Your task to perform on an android device: What's the weather? Image 0: 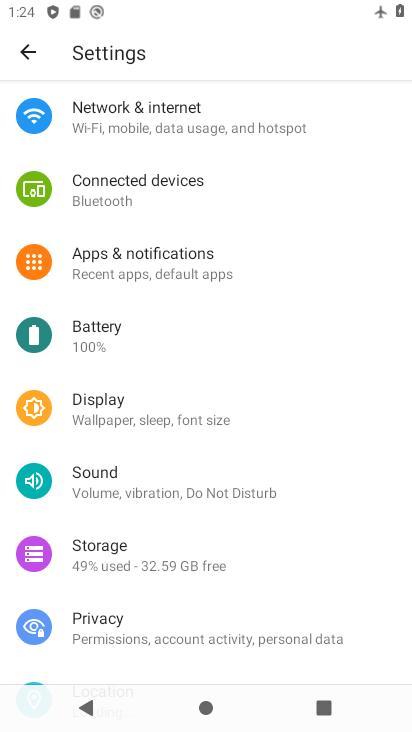
Step 0: press home button
Your task to perform on an android device: What's the weather? Image 1: 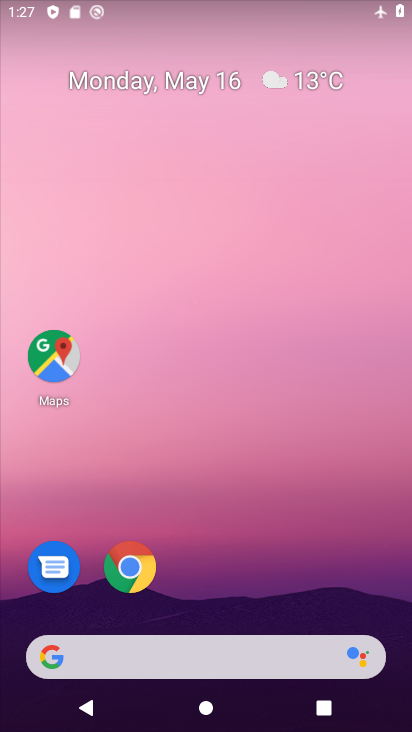
Step 1: click (167, 645)
Your task to perform on an android device: What's the weather? Image 2: 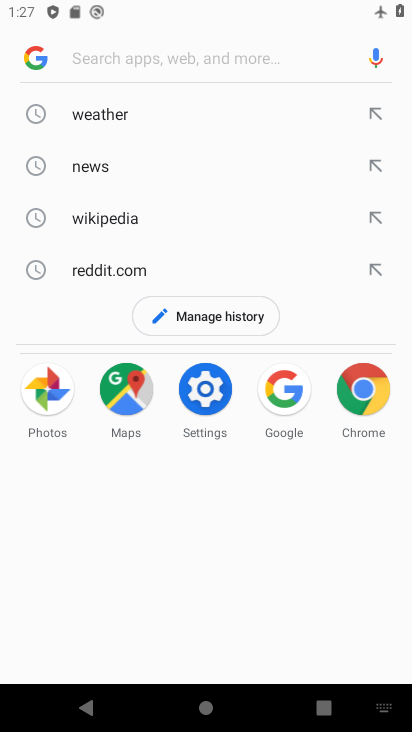
Step 2: click (91, 113)
Your task to perform on an android device: What's the weather? Image 3: 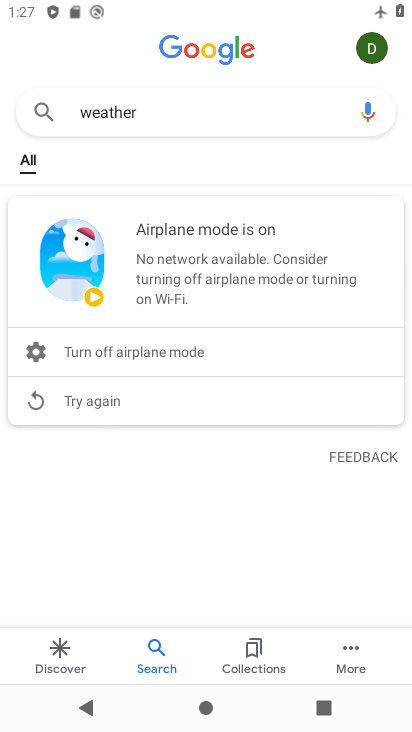
Step 3: task complete